Your task to perform on an android device: Check the weather Image 0: 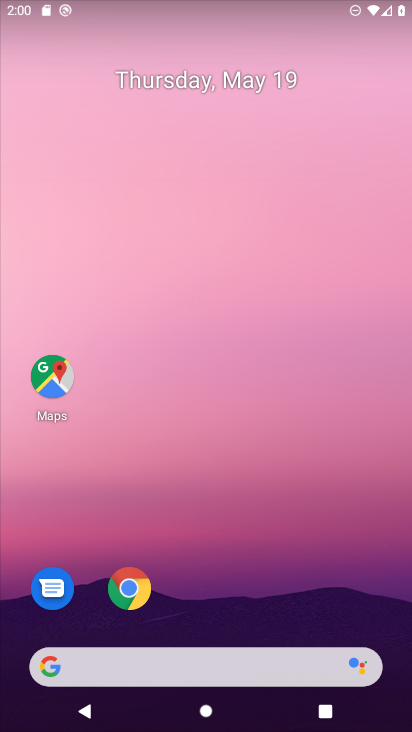
Step 0: click (153, 664)
Your task to perform on an android device: Check the weather Image 1: 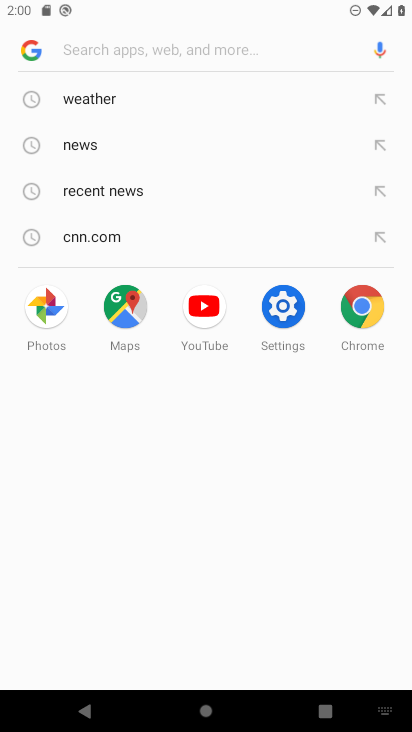
Step 1: click (75, 102)
Your task to perform on an android device: Check the weather Image 2: 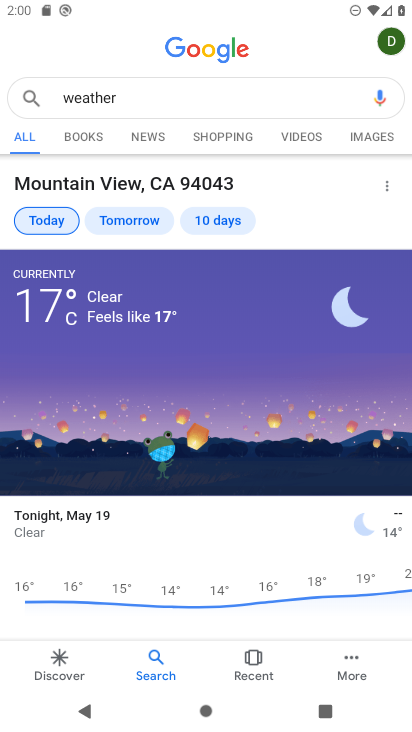
Step 2: task complete